Your task to perform on an android device: open wifi settings Image 0: 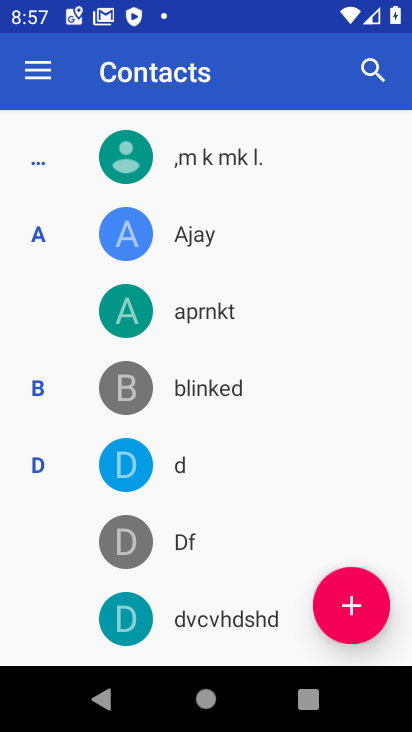
Step 0: press home button
Your task to perform on an android device: open wifi settings Image 1: 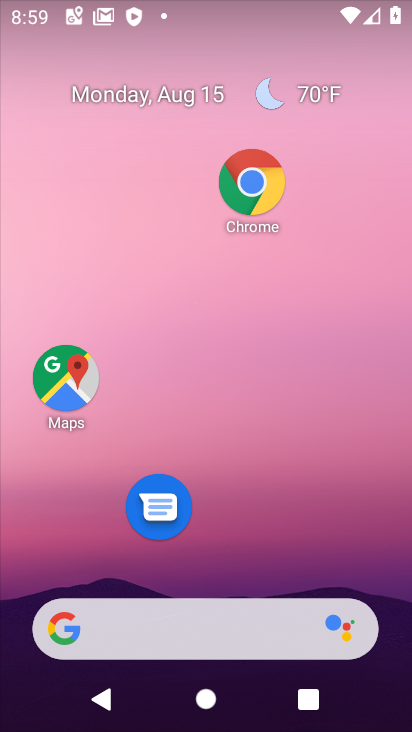
Step 1: task complete